Your task to perform on an android device: Show me productivity apps on the Play Store Image 0: 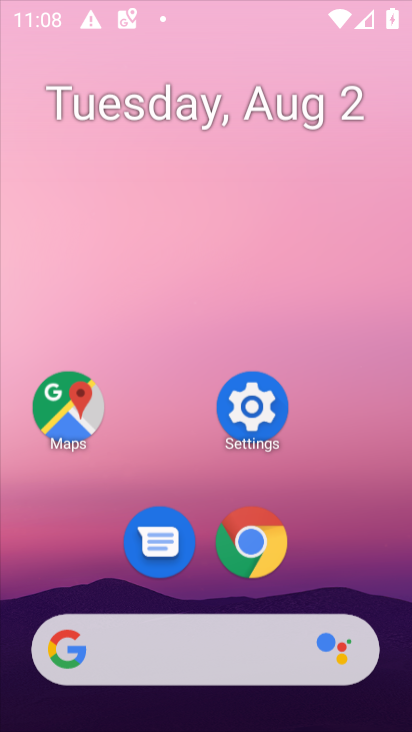
Step 0: press home button
Your task to perform on an android device: Show me productivity apps on the Play Store Image 1: 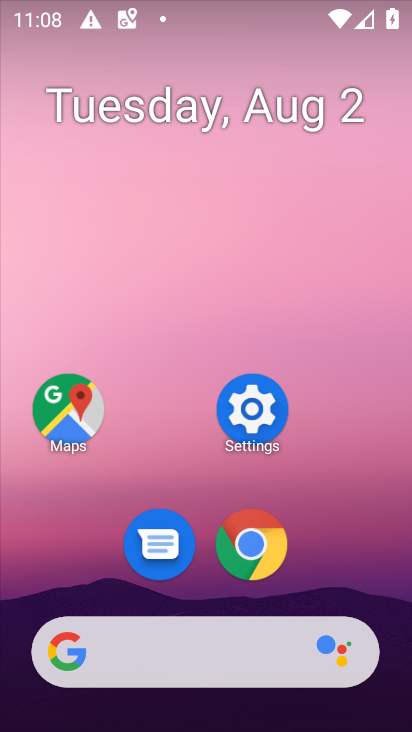
Step 1: click (257, 546)
Your task to perform on an android device: Show me productivity apps on the Play Store Image 2: 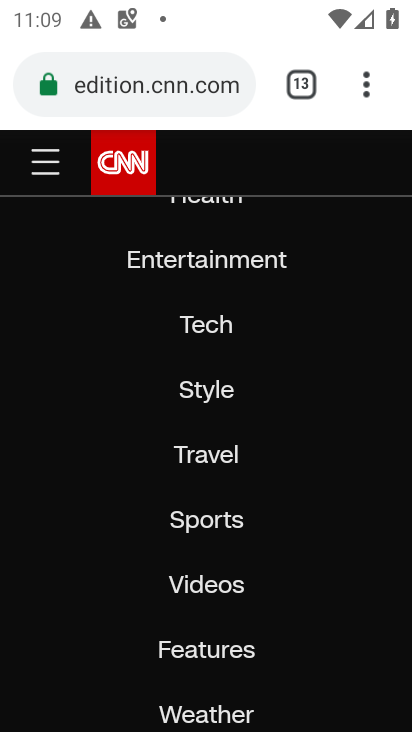
Step 2: press home button
Your task to perform on an android device: Show me productivity apps on the Play Store Image 3: 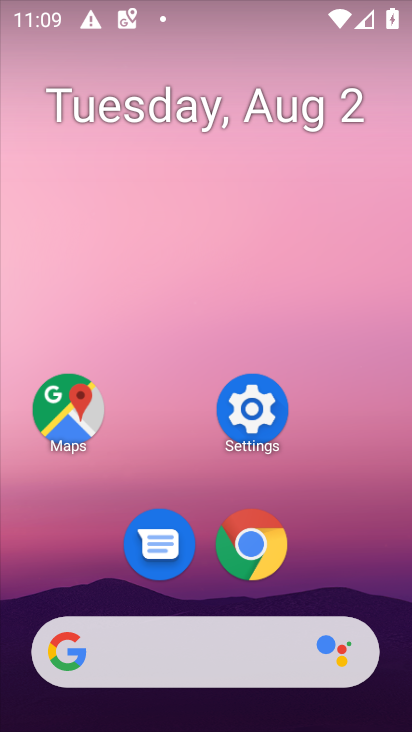
Step 3: drag from (223, 651) to (356, 86)
Your task to perform on an android device: Show me productivity apps on the Play Store Image 4: 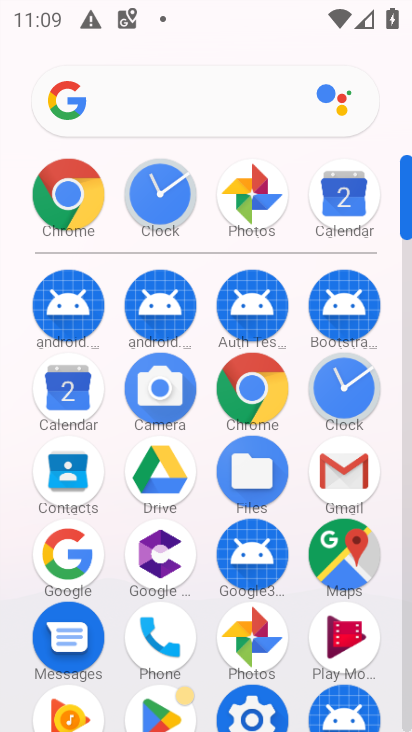
Step 4: drag from (114, 648) to (220, 326)
Your task to perform on an android device: Show me productivity apps on the Play Store Image 5: 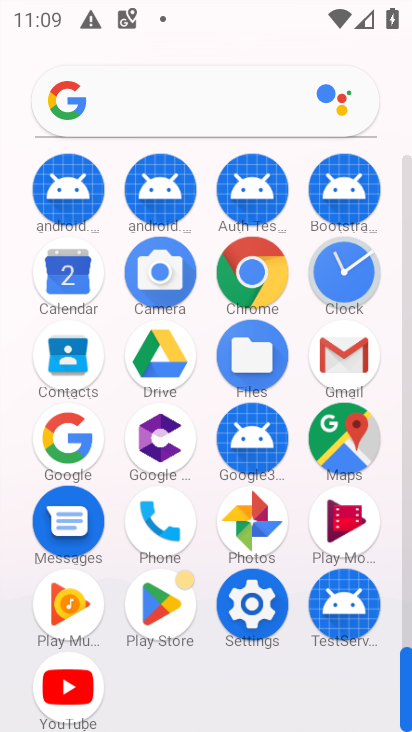
Step 5: click (155, 613)
Your task to perform on an android device: Show me productivity apps on the Play Store Image 6: 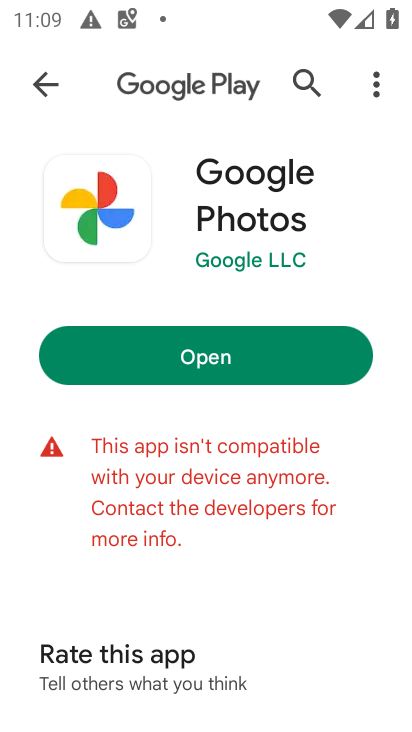
Step 6: click (43, 81)
Your task to perform on an android device: Show me productivity apps on the Play Store Image 7: 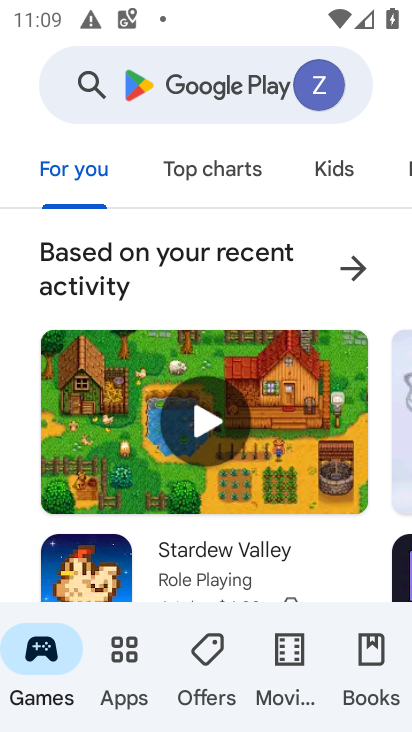
Step 7: click (126, 665)
Your task to perform on an android device: Show me productivity apps on the Play Store Image 8: 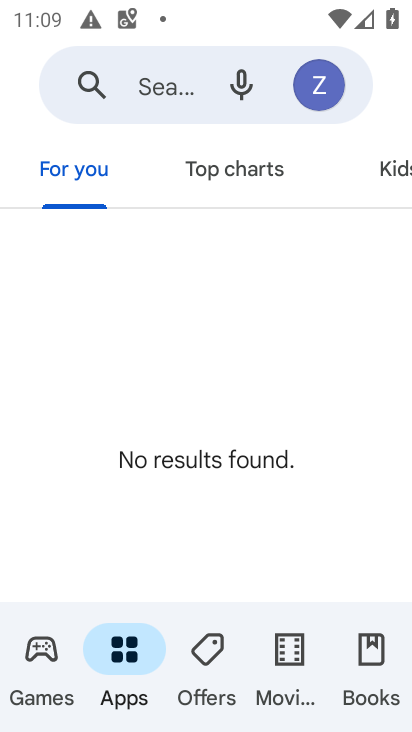
Step 8: drag from (387, 171) to (12, 163)
Your task to perform on an android device: Show me productivity apps on the Play Store Image 9: 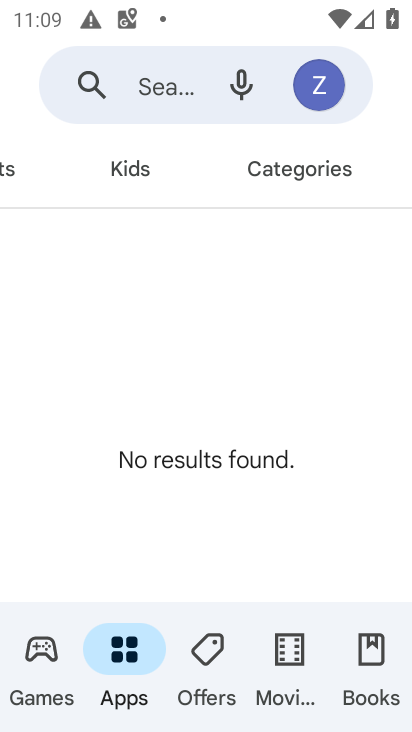
Step 9: click (313, 172)
Your task to perform on an android device: Show me productivity apps on the Play Store Image 10: 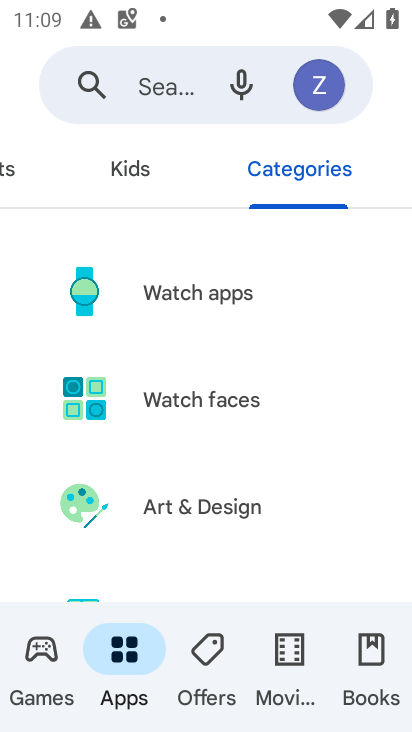
Step 10: drag from (288, 559) to (328, 68)
Your task to perform on an android device: Show me productivity apps on the Play Store Image 11: 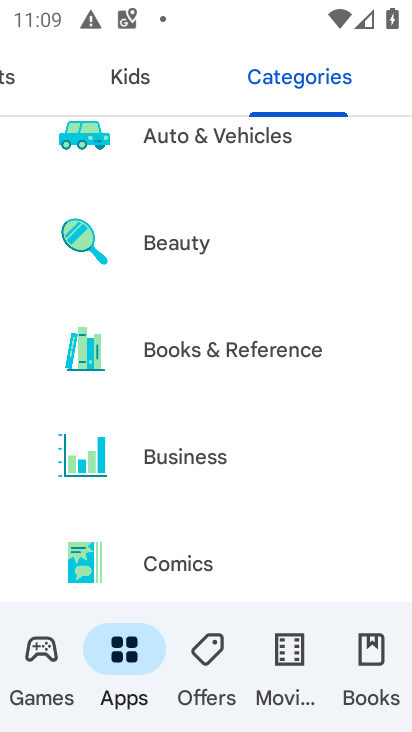
Step 11: drag from (234, 565) to (331, 17)
Your task to perform on an android device: Show me productivity apps on the Play Store Image 12: 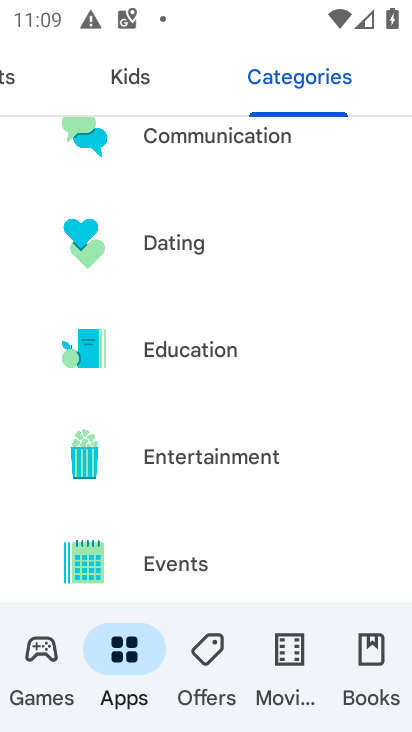
Step 12: drag from (256, 513) to (385, 114)
Your task to perform on an android device: Show me productivity apps on the Play Store Image 13: 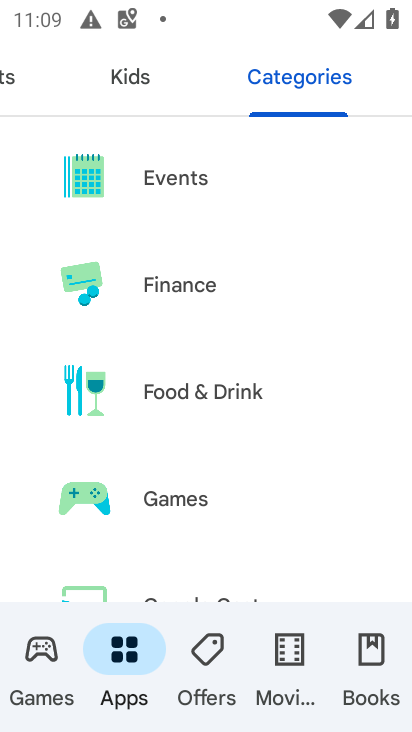
Step 13: drag from (257, 549) to (364, 69)
Your task to perform on an android device: Show me productivity apps on the Play Store Image 14: 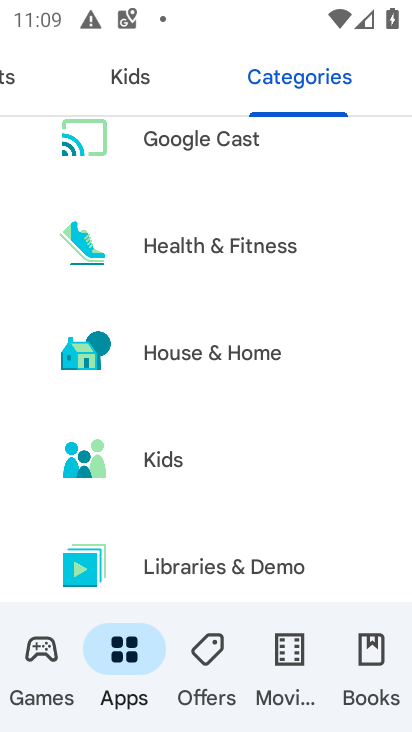
Step 14: drag from (264, 535) to (343, 29)
Your task to perform on an android device: Show me productivity apps on the Play Store Image 15: 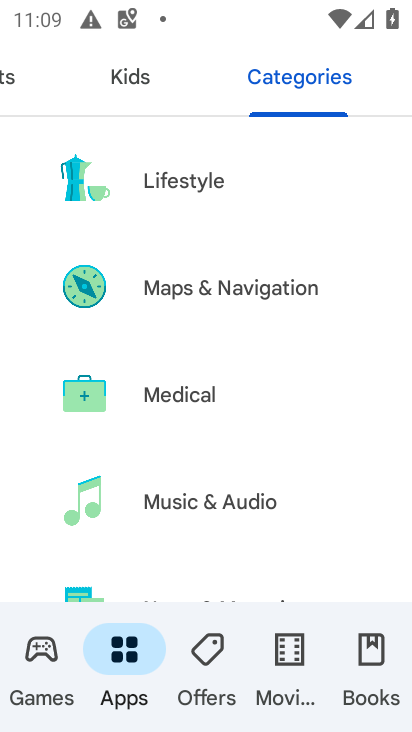
Step 15: drag from (254, 568) to (377, 59)
Your task to perform on an android device: Show me productivity apps on the Play Store Image 16: 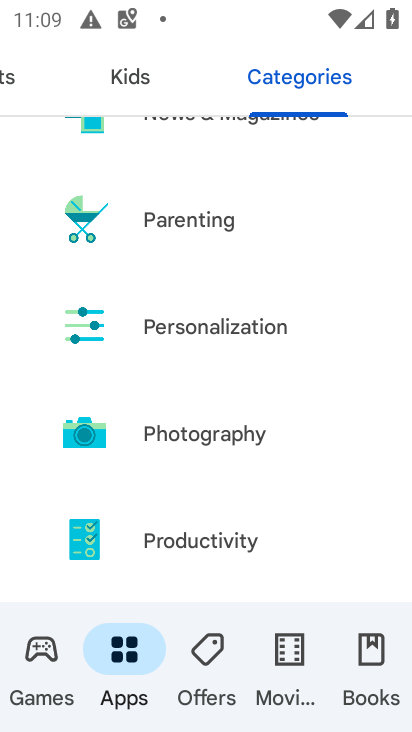
Step 16: click (241, 537)
Your task to perform on an android device: Show me productivity apps on the Play Store Image 17: 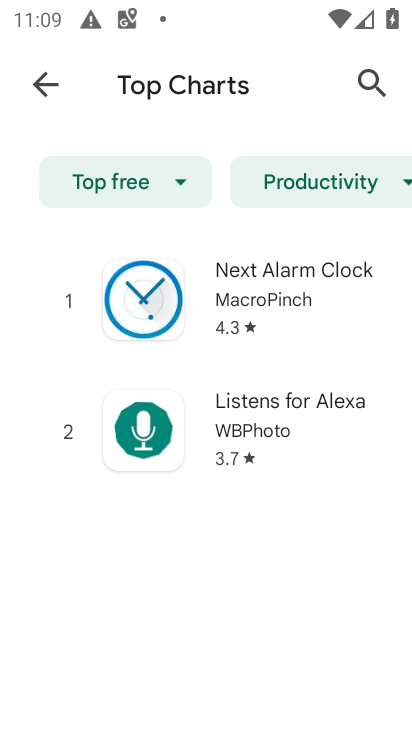
Step 17: task complete